Your task to perform on an android device: open app "Google Chrome" (install if not already installed) Image 0: 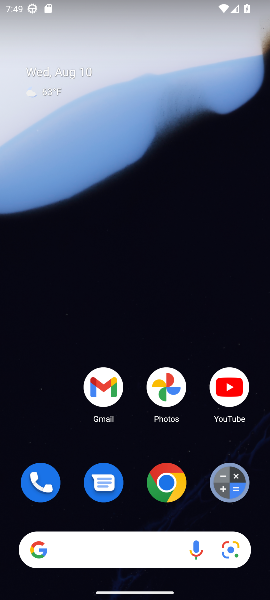
Step 0: click (164, 484)
Your task to perform on an android device: open app "Google Chrome" (install if not already installed) Image 1: 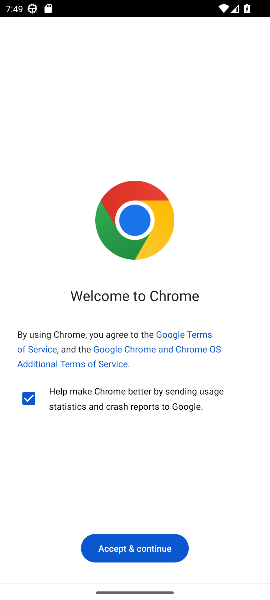
Step 1: click (144, 541)
Your task to perform on an android device: open app "Google Chrome" (install if not already installed) Image 2: 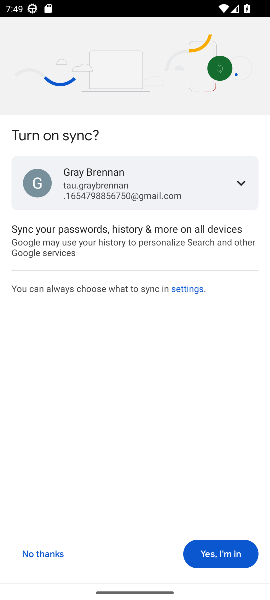
Step 2: click (218, 552)
Your task to perform on an android device: open app "Google Chrome" (install if not already installed) Image 3: 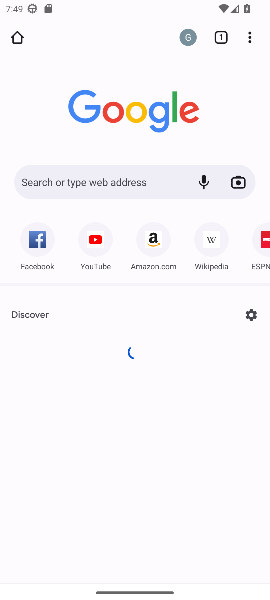
Step 3: task complete